Your task to perform on an android device: check out phone information Image 0: 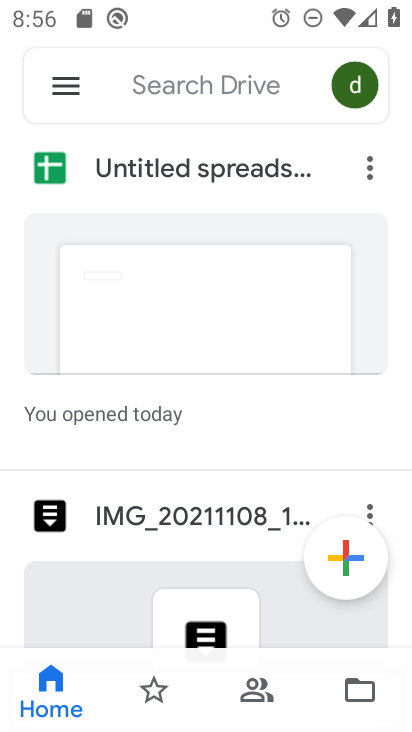
Step 0: press home button
Your task to perform on an android device: check out phone information Image 1: 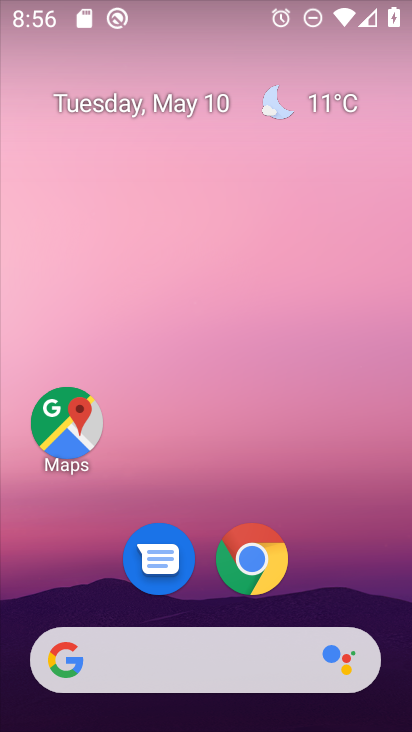
Step 1: drag from (222, 711) to (230, 151)
Your task to perform on an android device: check out phone information Image 2: 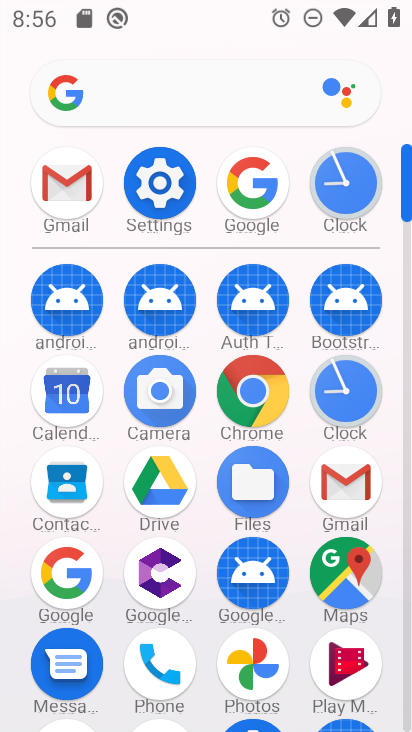
Step 2: click (149, 170)
Your task to perform on an android device: check out phone information Image 3: 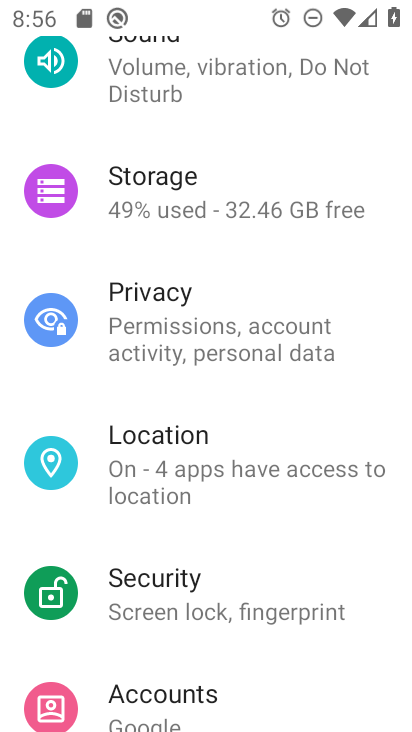
Step 3: drag from (225, 680) to (248, 254)
Your task to perform on an android device: check out phone information Image 4: 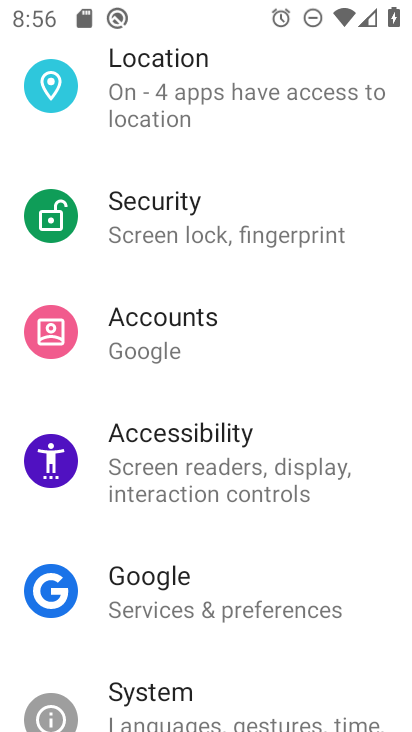
Step 4: drag from (226, 684) to (225, 274)
Your task to perform on an android device: check out phone information Image 5: 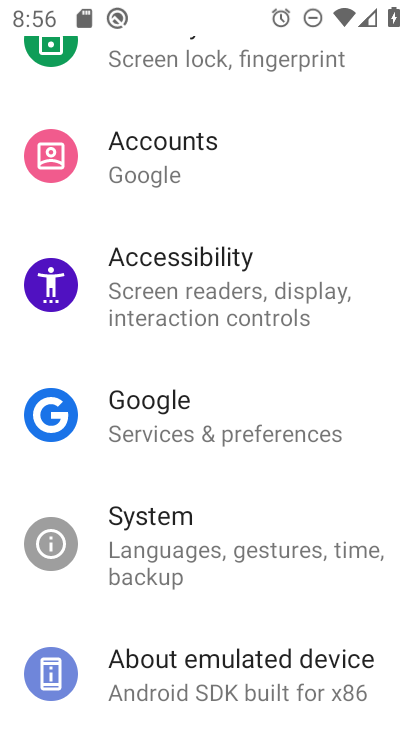
Step 5: click (178, 662)
Your task to perform on an android device: check out phone information Image 6: 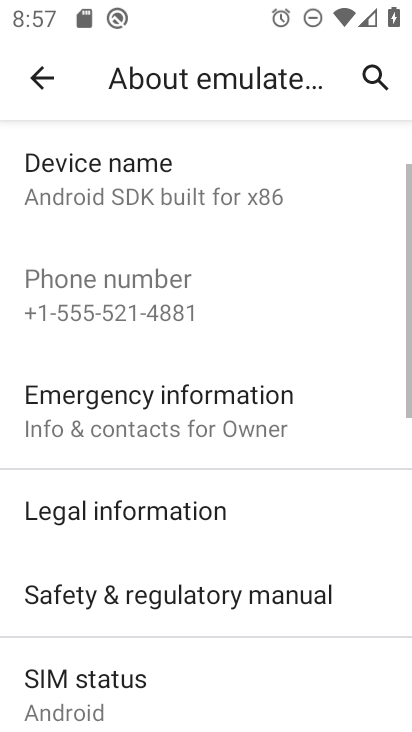
Step 6: task complete